Your task to perform on an android device: turn pop-ups on in chrome Image 0: 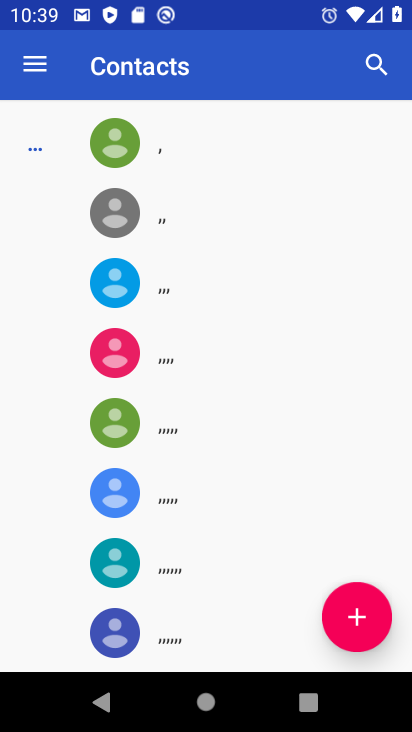
Step 0: press home button
Your task to perform on an android device: turn pop-ups on in chrome Image 1: 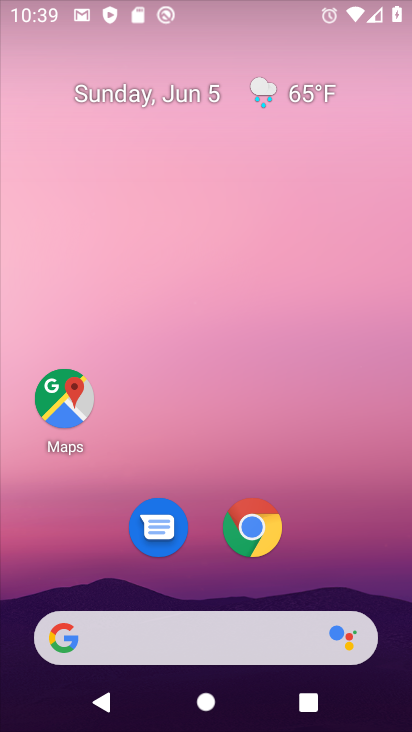
Step 1: drag from (49, 573) to (374, 81)
Your task to perform on an android device: turn pop-ups on in chrome Image 2: 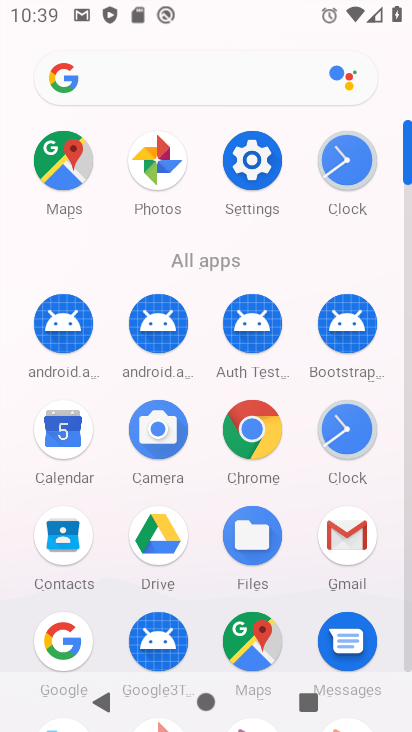
Step 2: click (242, 434)
Your task to perform on an android device: turn pop-ups on in chrome Image 3: 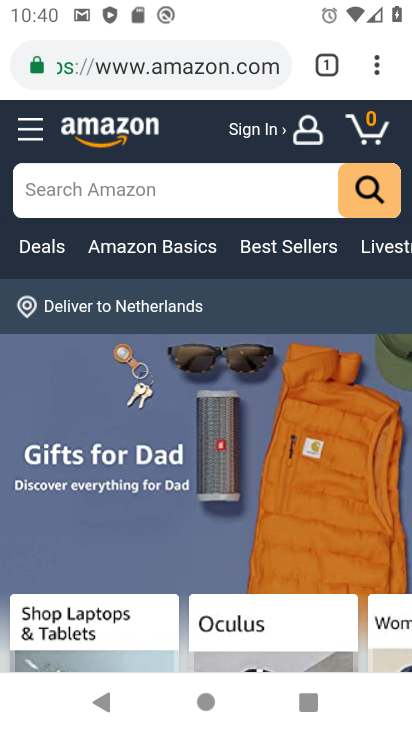
Step 3: click (379, 64)
Your task to perform on an android device: turn pop-ups on in chrome Image 4: 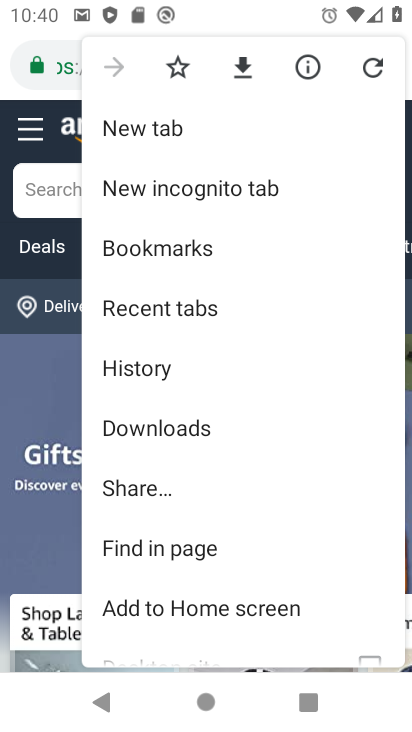
Step 4: drag from (131, 640) to (314, 154)
Your task to perform on an android device: turn pop-ups on in chrome Image 5: 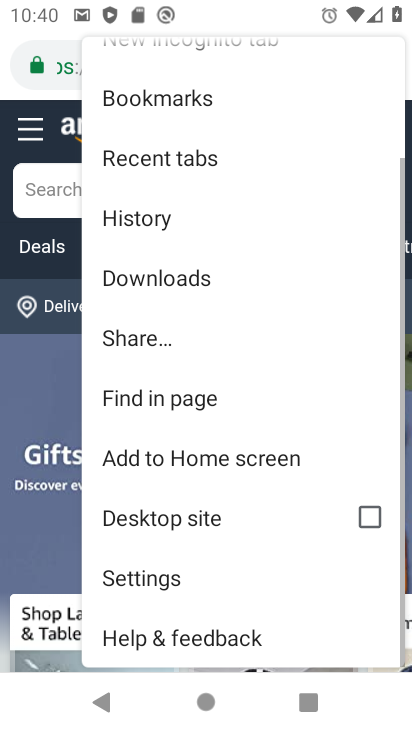
Step 5: click (147, 577)
Your task to perform on an android device: turn pop-ups on in chrome Image 6: 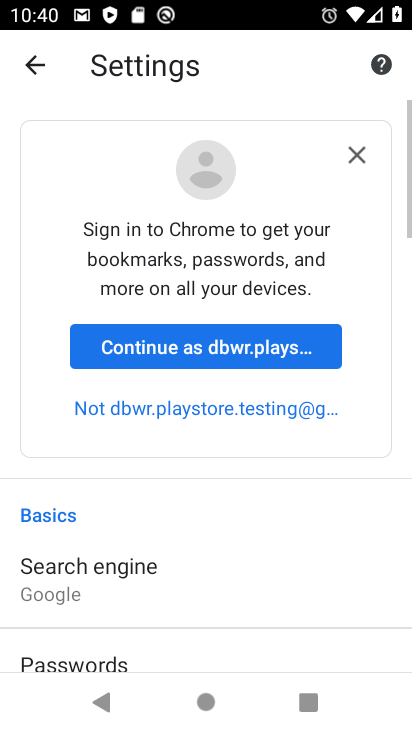
Step 6: click (361, 158)
Your task to perform on an android device: turn pop-ups on in chrome Image 7: 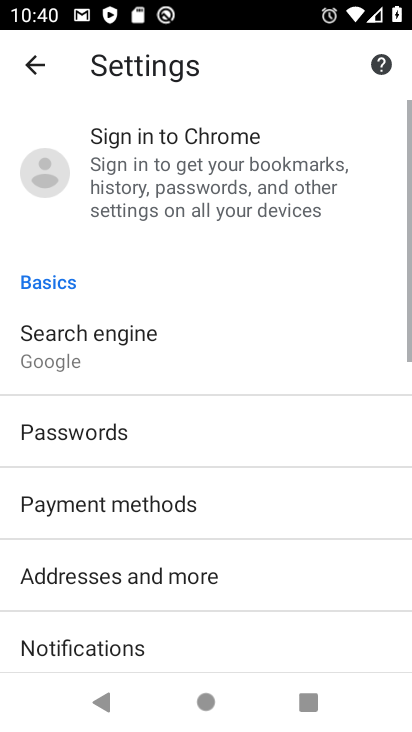
Step 7: drag from (25, 545) to (272, 186)
Your task to perform on an android device: turn pop-ups on in chrome Image 8: 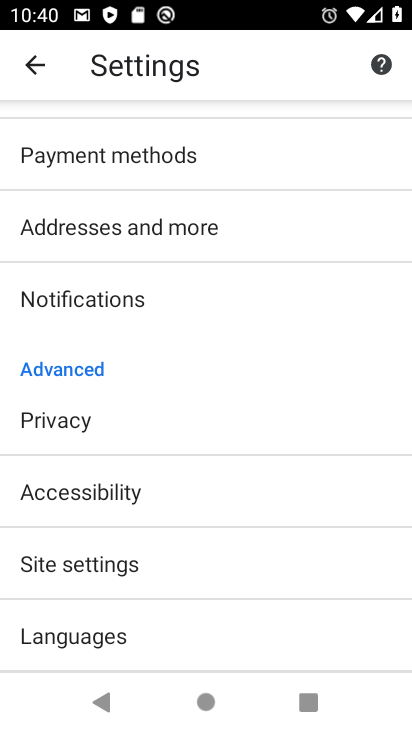
Step 8: click (60, 555)
Your task to perform on an android device: turn pop-ups on in chrome Image 9: 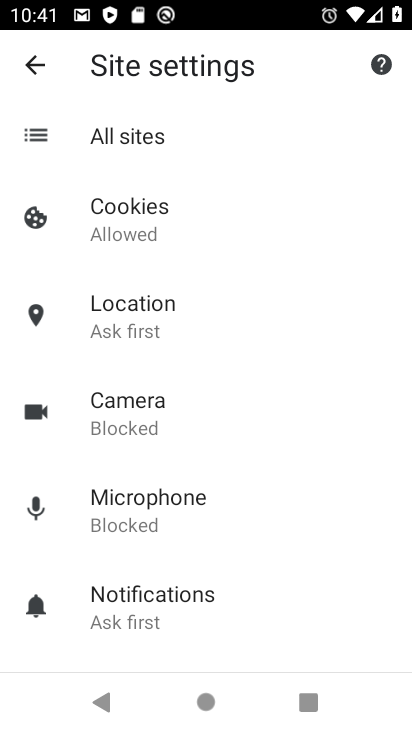
Step 9: drag from (21, 573) to (218, 208)
Your task to perform on an android device: turn pop-ups on in chrome Image 10: 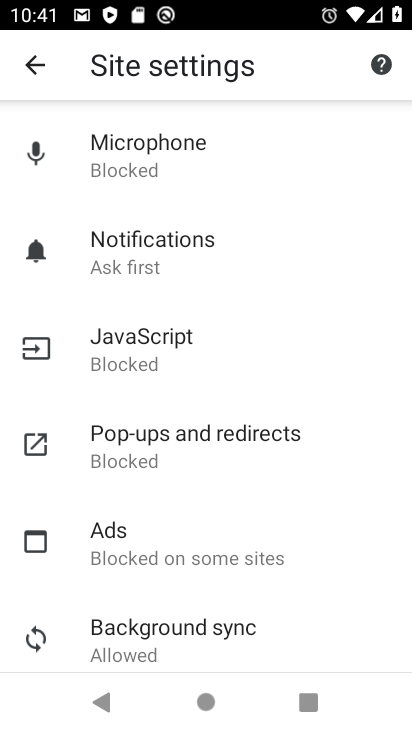
Step 10: click (185, 434)
Your task to perform on an android device: turn pop-ups on in chrome Image 11: 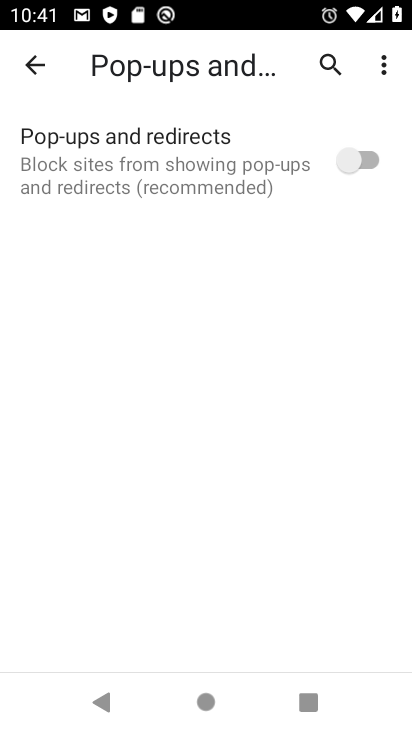
Step 11: click (359, 163)
Your task to perform on an android device: turn pop-ups on in chrome Image 12: 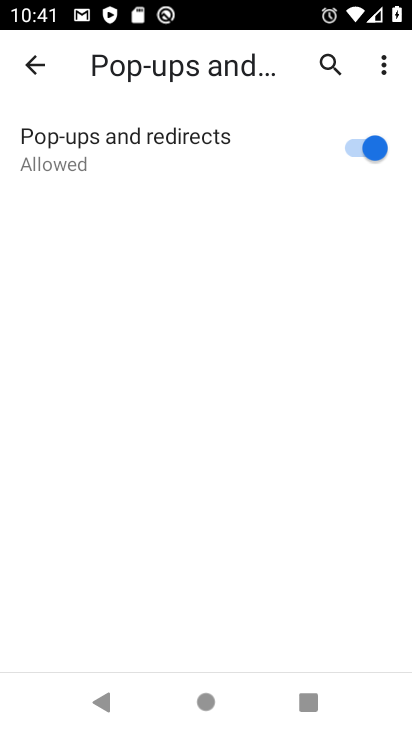
Step 12: task complete